Your task to perform on an android device: turn on showing notifications on the lock screen Image 0: 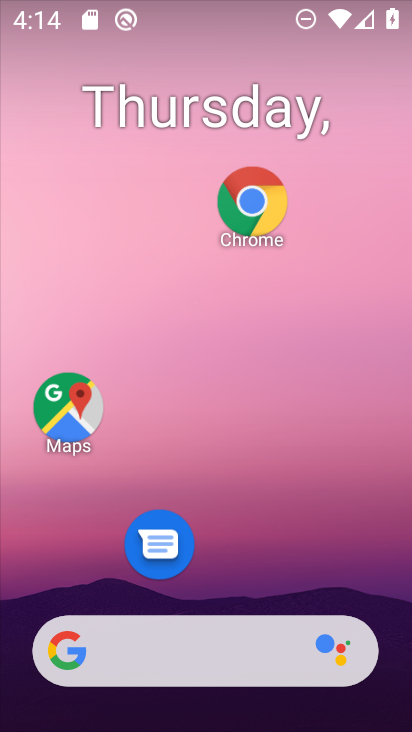
Step 0: drag from (346, 526) to (367, 270)
Your task to perform on an android device: turn on showing notifications on the lock screen Image 1: 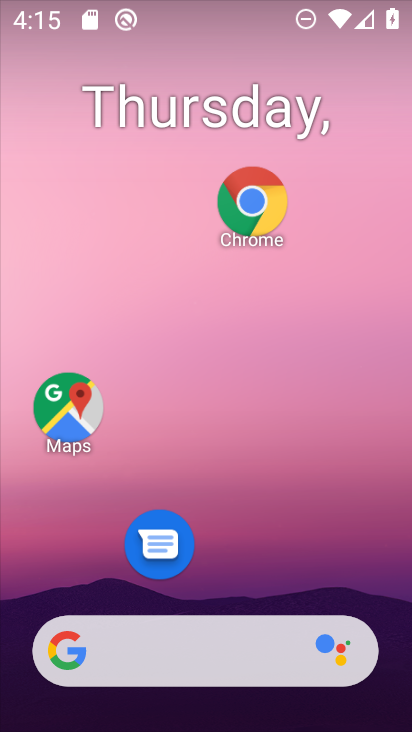
Step 1: drag from (283, 570) to (293, 61)
Your task to perform on an android device: turn on showing notifications on the lock screen Image 2: 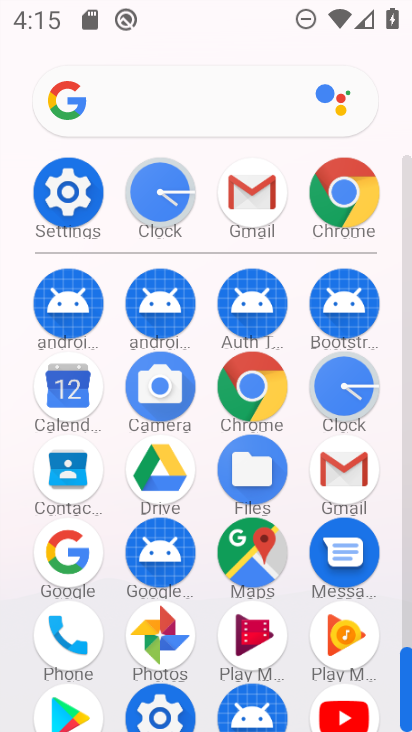
Step 2: click (75, 198)
Your task to perform on an android device: turn on showing notifications on the lock screen Image 3: 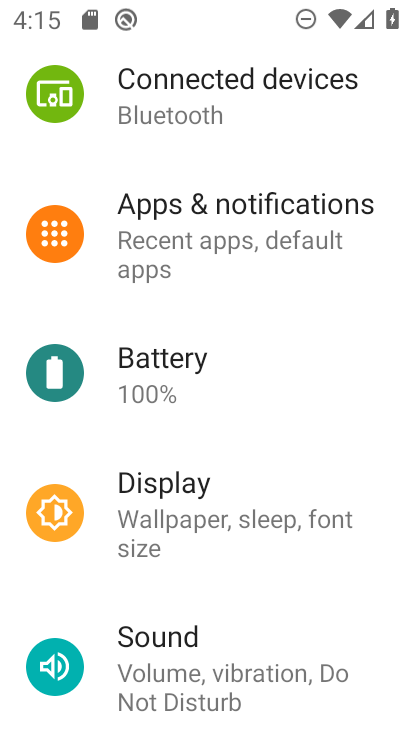
Step 3: click (176, 245)
Your task to perform on an android device: turn on showing notifications on the lock screen Image 4: 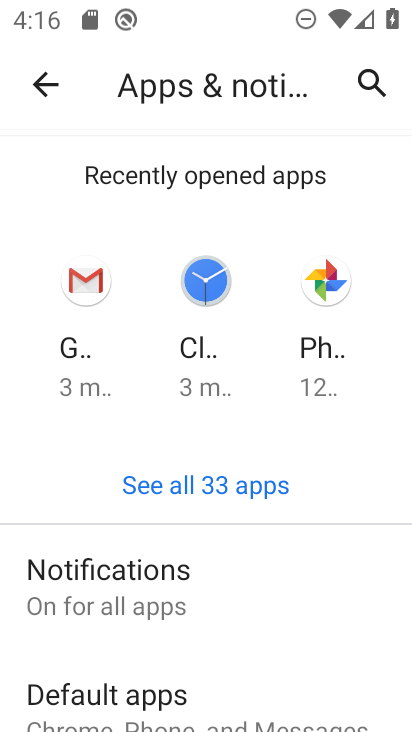
Step 4: drag from (204, 619) to (219, 316)
Your task to perform on an android device: turn on showing notifications on the lock screen Image 5: 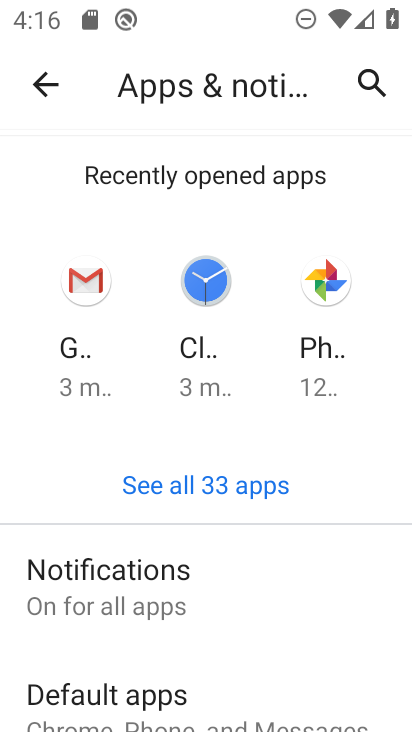
Step 5: drag from (270, 630) to (265, 342)
Your task to perform on an android device: turn on showing notifications on the lock screen Image 6: 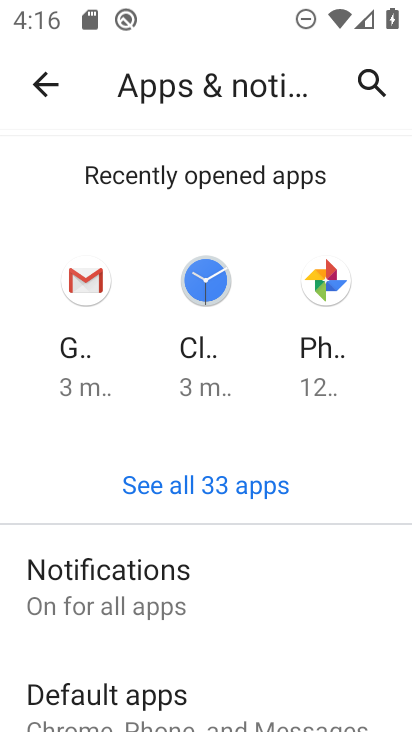
Step 6: drag from (290, 656) to (311, 501)
Your task to perform on an android device: turn on showing notifications on the lock screen Image 7: 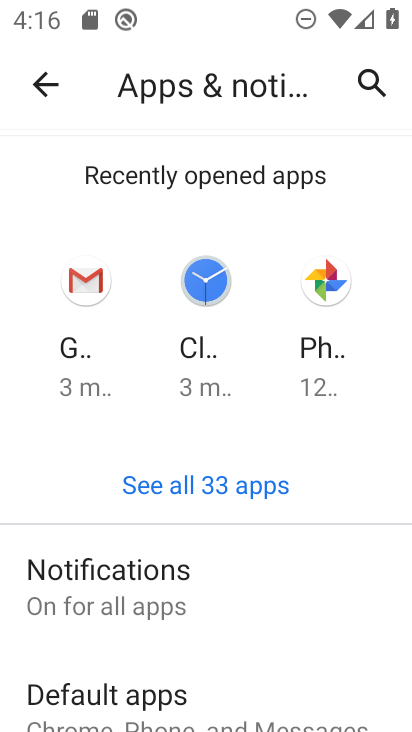
Step 7: press back button
Your task to perform on an android device: turn on showing notifications on the lock screen Image 8: 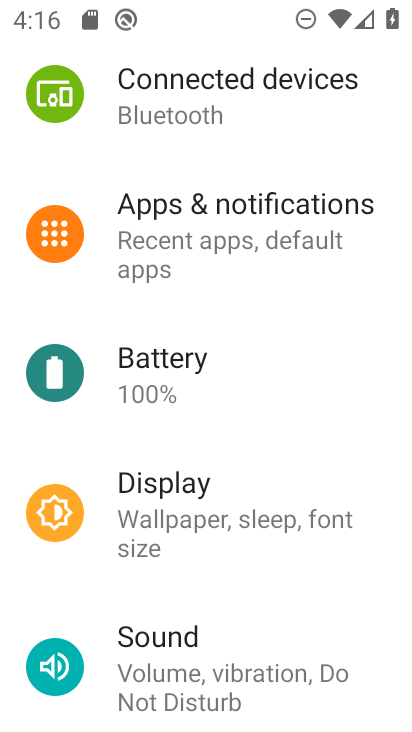
Step 8: click (161, 232)
Your task to perform on an android device: turn on showing notifications on the lock screen Image 9: 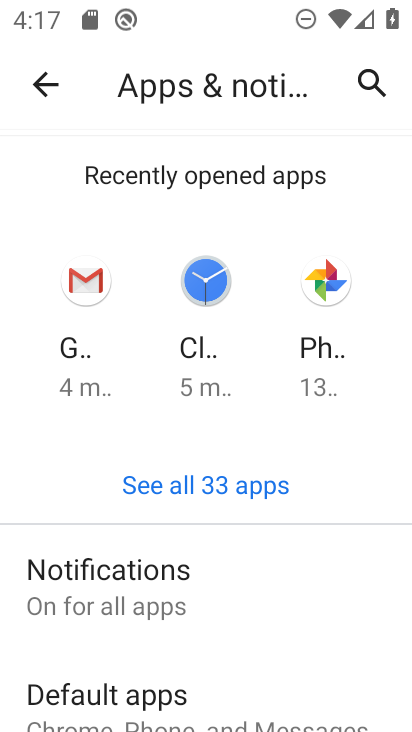
Step 9: drag from (245, 585) to (275, 93)
Your task to perform on an android device: turn on showing notifications on the lock screen Image 10: 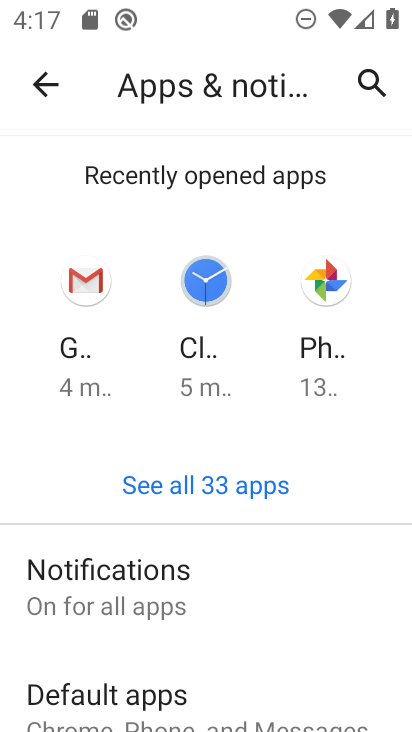
Step 10: click (159, 586)
Your task to perform on an android device: turn on showing notifications on the lock screen Image 11: 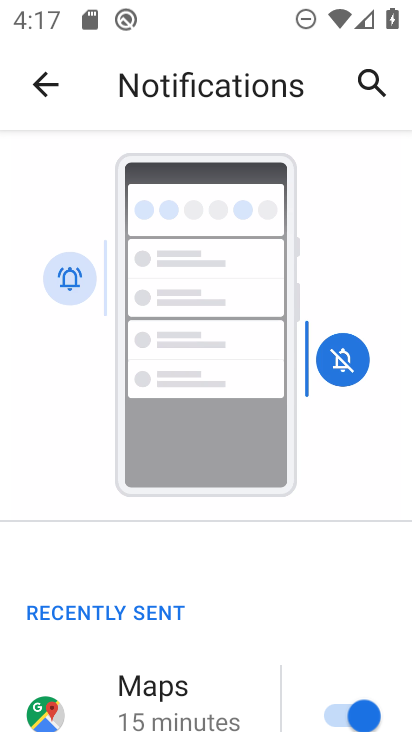
Step 11: press back button
Your task to perform on an android device: turn on showing notifications on the lock screen Image 12: 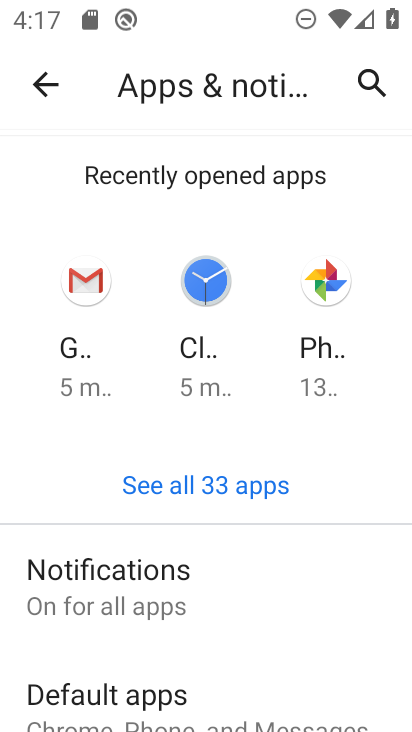
Step 12: drag from (233, 616) to (300, 124)
Your task to perform on an android device: turn on showing notifications on the lock screen Image 13: 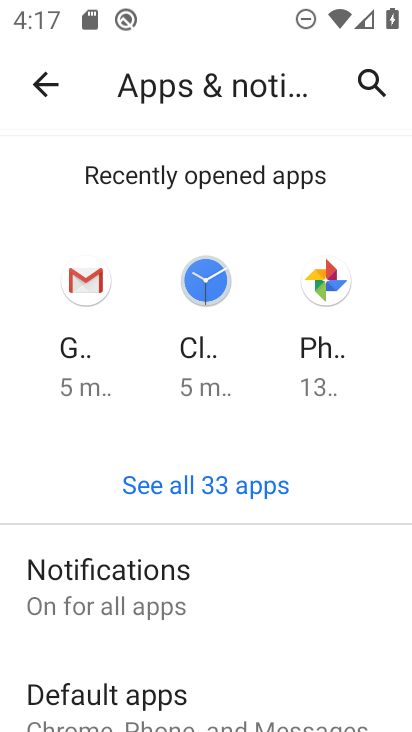
Step 13: click (196, 610)
Your task to perform on an android device: turn on showing notifications on the lock screen Image 14: 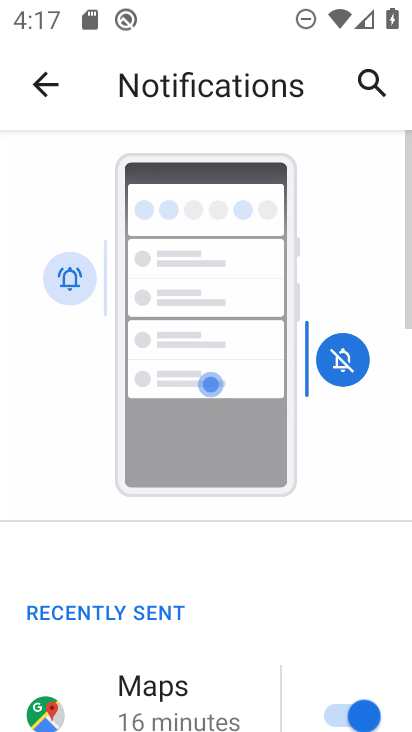
Step 14: drag from (198, 613) to (281, 85)
Your task to perform on an android device: turn on showing notifications on the lock screen Image 15: 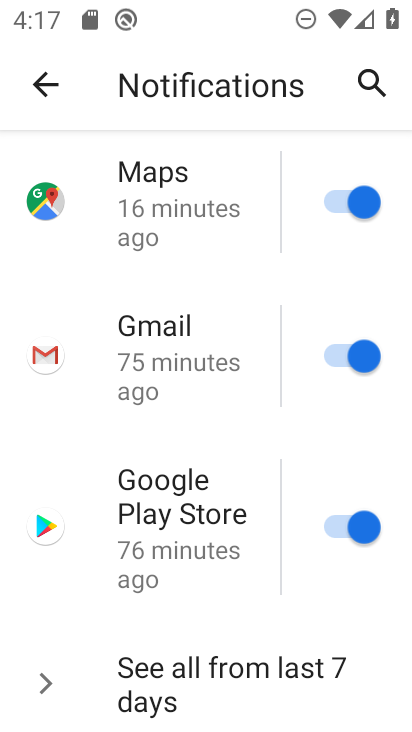
Step 15: drag from (205, 639) to (261, 183)
Your task to perform on an android device: turn on showing notifications on the lock screen Image 16: 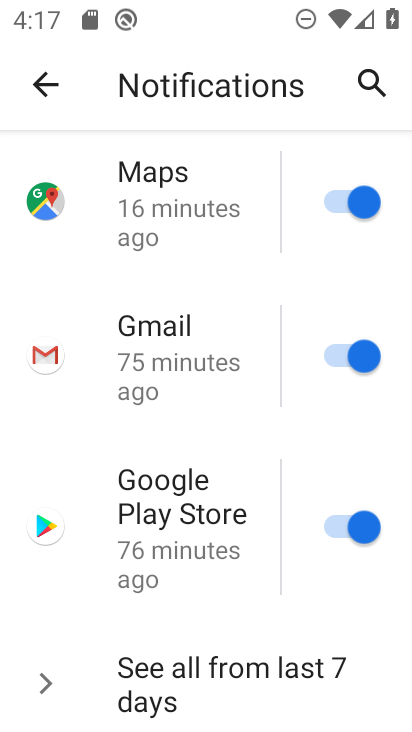
Step 16: click (200, 679)
Your task to perform on an android device: turn on showing notifications on the lock screen Image 17: 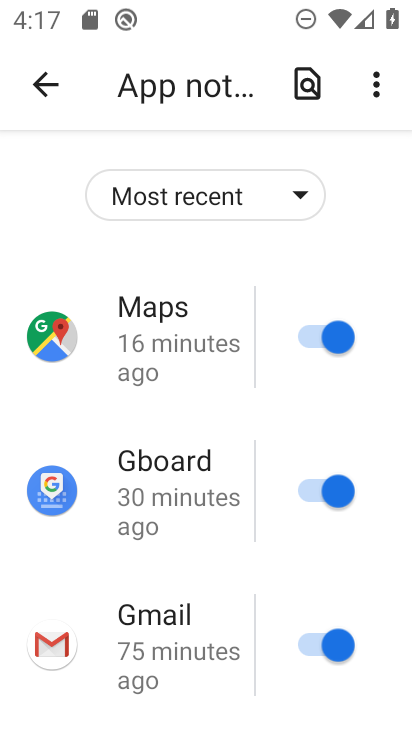
Step 17: drag from (192, 254) to (94, 638)
Your task to perform on an android device: turn on showing notifications on the lock screen Image 18: 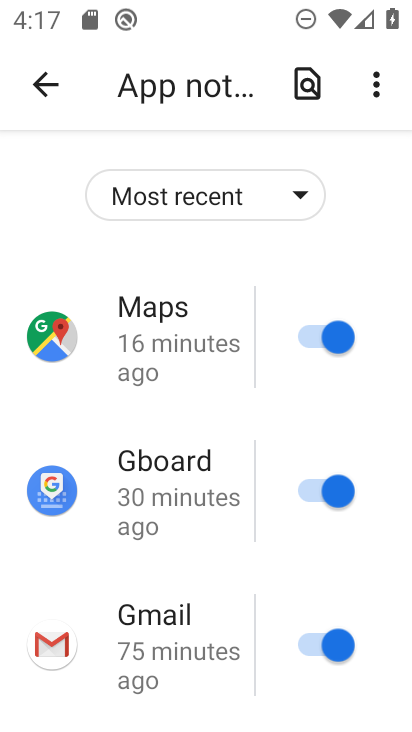
Step 18: drag from (221, 499) to (216, 34)
Your task to perform on an android device: turn on showing notifications on the lock screen Image 19: 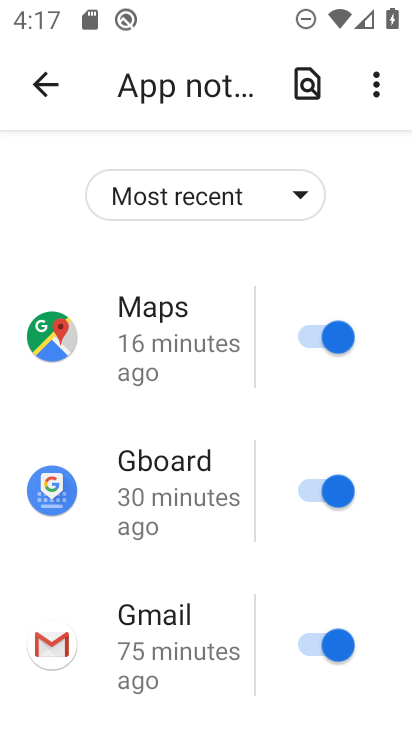
Step 19: drag from (193, 617) to (242, 321)
Your task to perform on an android device: turn on showing notifications on the lock screen Image 20: 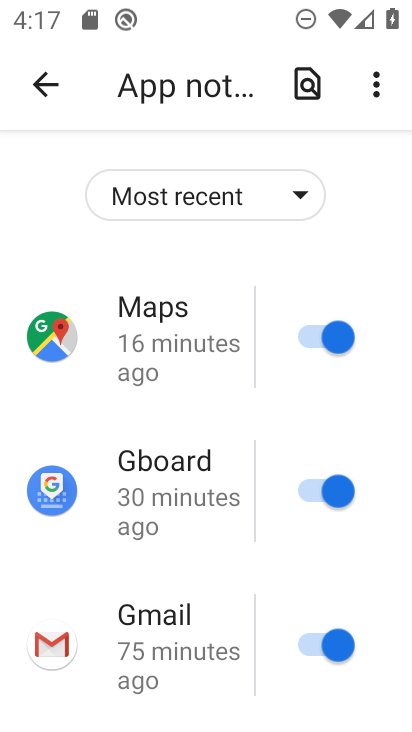
Step 20: drag from (275, 661) to (279, 172)
Your task to perform on an android device: turn on showing notifications on the lock screen Image 21: 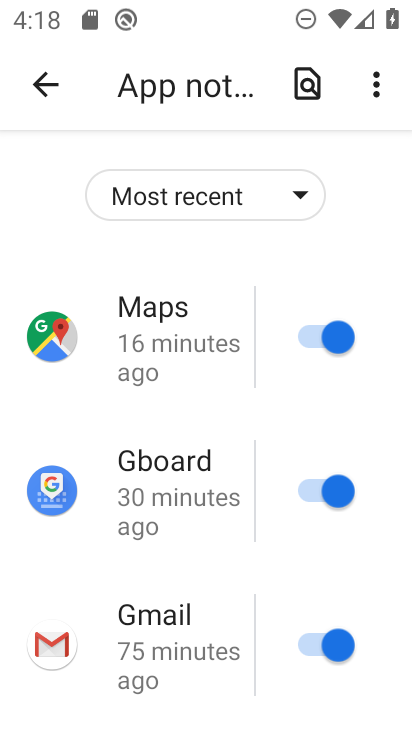
Step 21: drag from (1, 651) to (116, 313)
Your task to perform on an android device: turn on showing notifications on the lock screen Image 22: 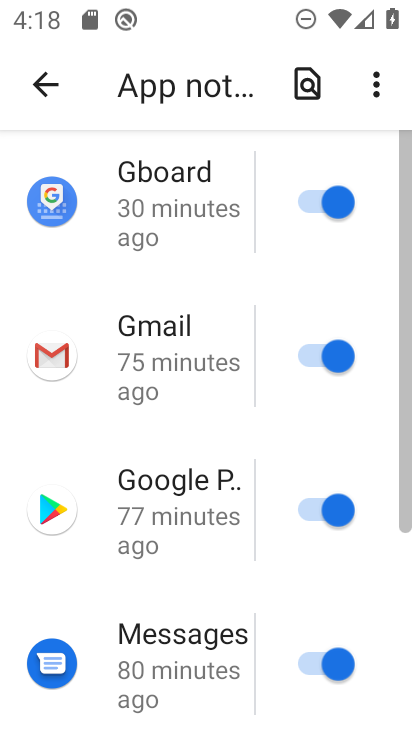
Step 22: drag from (203, 626) to (279, 184)
Your task to perform on an android device: turn on showing notifications on the lock screen Image 23: 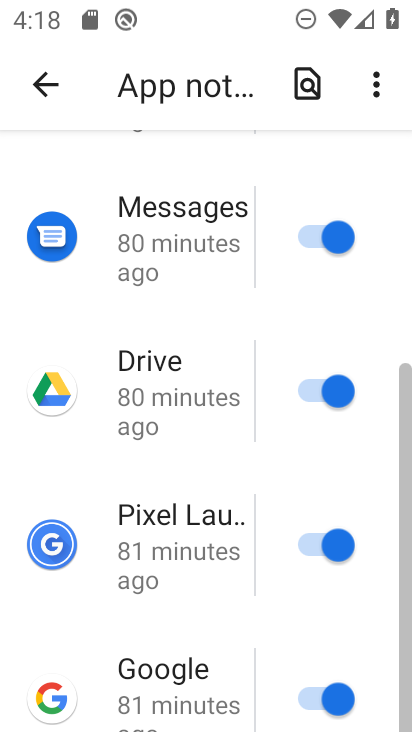
Step 23: drag from (206, 626) to (285, 168)
Your task to perform on an android device: turn on showing notifications on the lock screen Image 24: 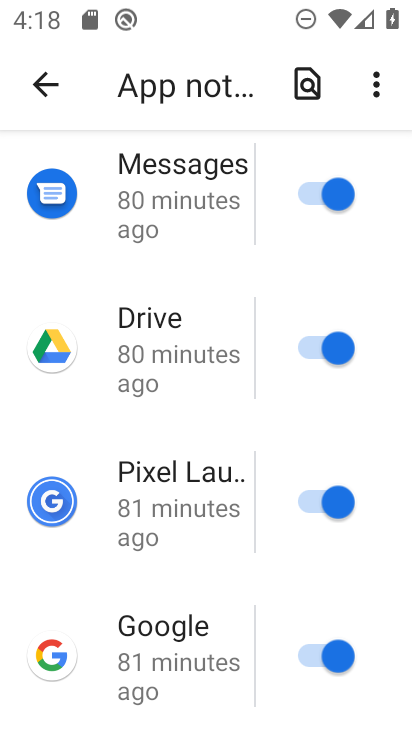
Step 24: click (45, 81)
Your task to perform on an android device: turn on showing notifications on the lock screen Image 25: 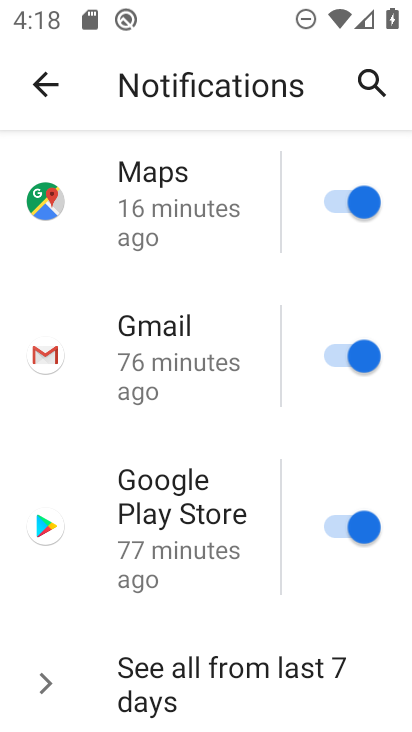
Step 25: drag from (265, 512) to (335, 140)
Your task to perform on an android device: turn on showing notifications on the lock screen Image 26: 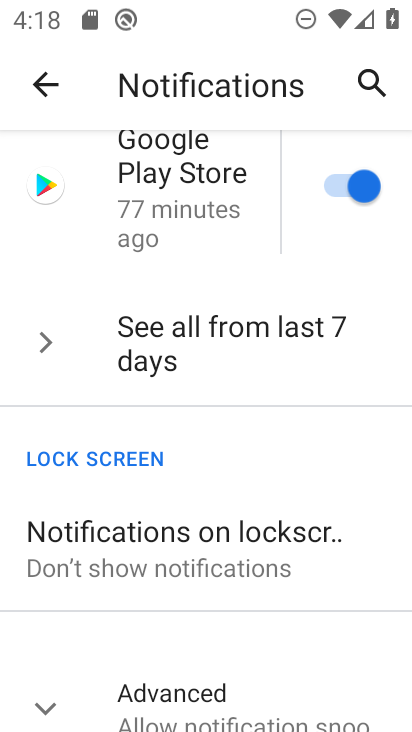
Step 26: click (212, 537)
Your task to perform on an android device: turn on showing notifications on the lock screen Image 27: 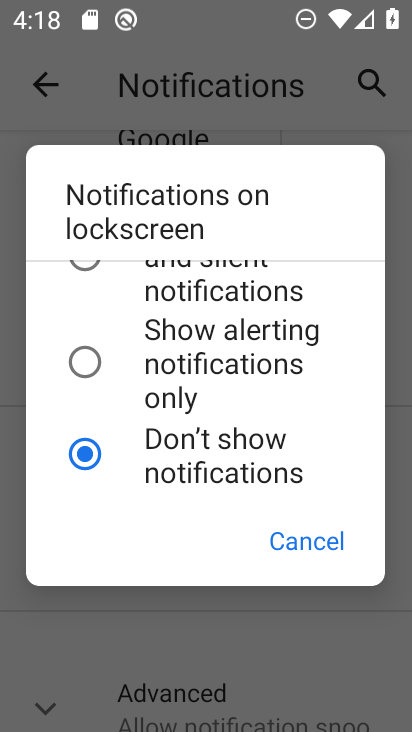
Step 27: drag from (87, 312) to (59, 534)
Your task to perform on an android device: turn on showing notifications on the lock screen Image 28: 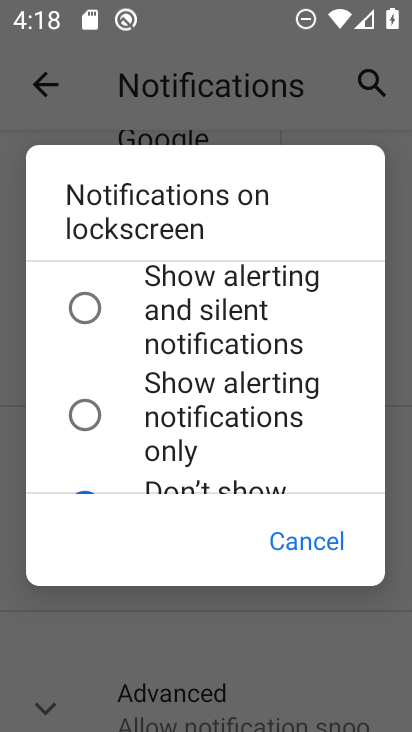
Step 28: click (86, 309)
Your task to perform on an android device: turn on showing notifications on the lock screen Image 29: 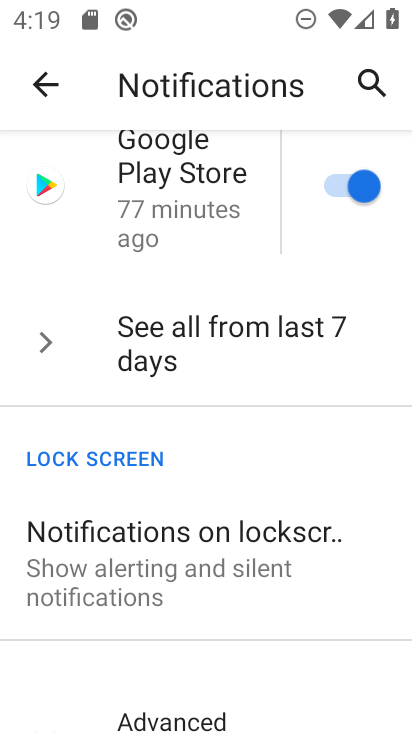
Step 29: press home button
Your task to perform on an android device: turn on showing notifications on the lock screen Image 30: 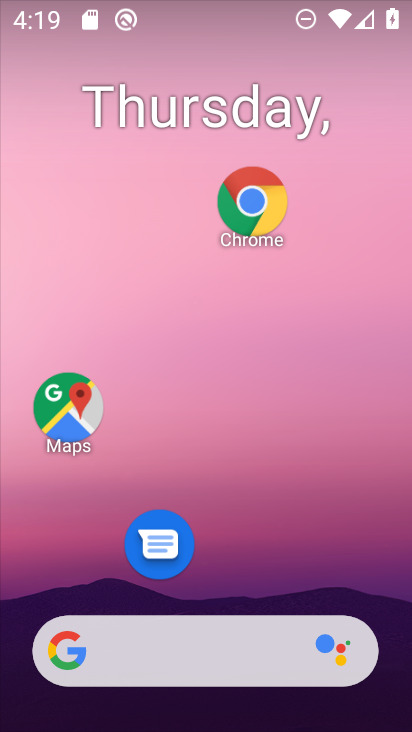
Step 30: drag from (292, 523) to (265, 162)
Your task to perform on an android device: turn on showing notifications on the lock screen Image 31: 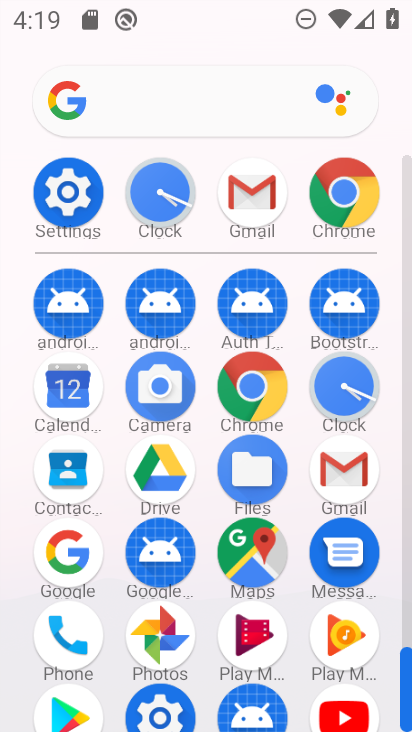
Step 31: click (72, 202)
Your task to perform on an android device: turn on showing notifications on the lock screen Image 32: 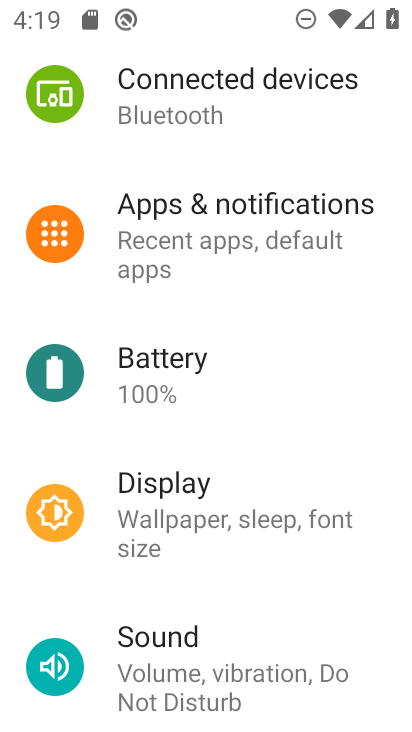
Step 32: click (223, 217)
Your task to perform on an android device: turn on showing notifications on the lock screen Image 33: 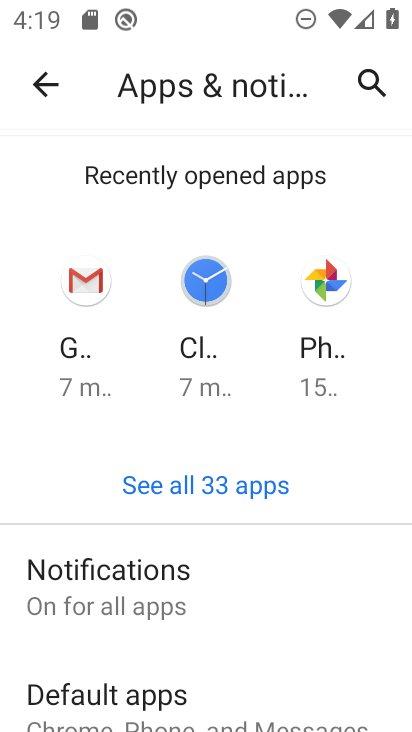
Step 33: drag from (255, 634) to (154, 198)
Your task to perform on an android device: turn on showing notifications on the lock screen Image 34: 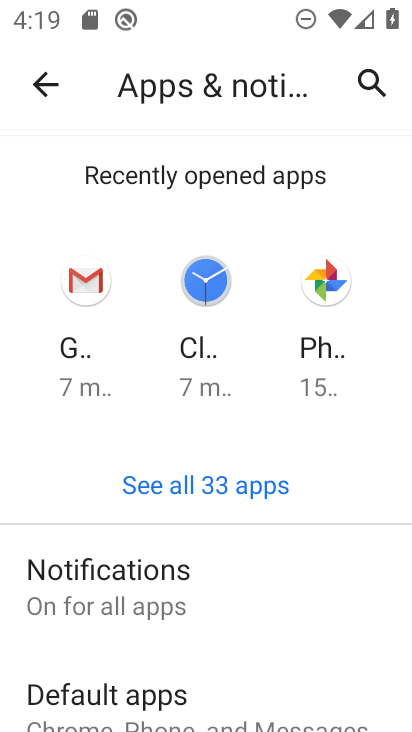
Step 34: drag from (275, 654) to (270, 319)
Your task to perform on an android device: turn on showing notifications on the lock screen Image 35: 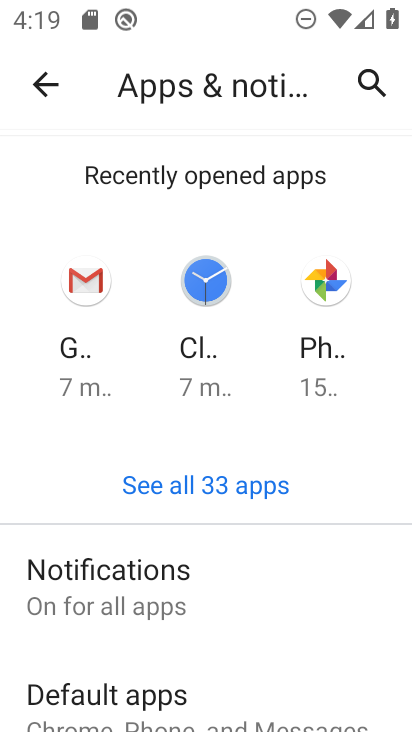
Step 35: drag from (228, 651) to (260, 582)
Your task to perform on an android device: turn on showing notifications on the lock screen Image 36: 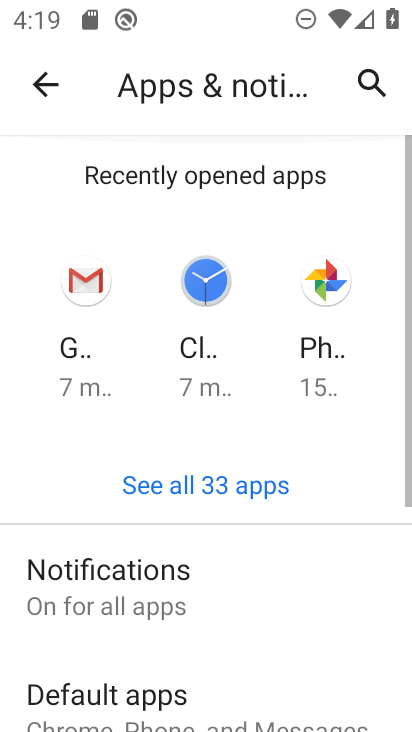
Step 36: drag from (312, 609) to (337, 153)
Your task to perform on an android device: turn on showing notifications on the lock screen Image 37: 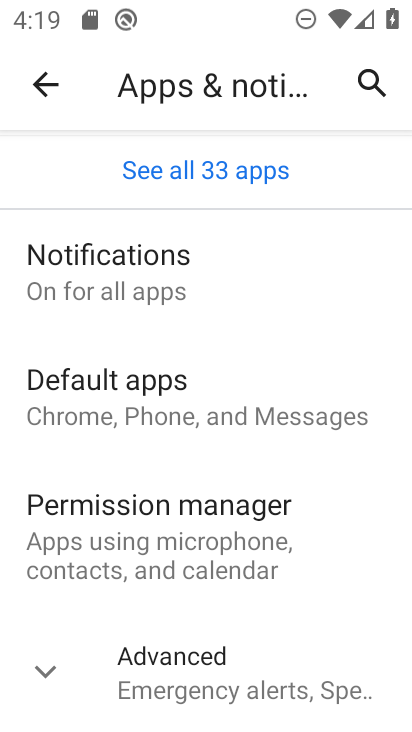
Step 37: drag from (288, 608) to (312, 156)
Your task to perform on an android device: turn on showing notifications on the lock screen Image 38: 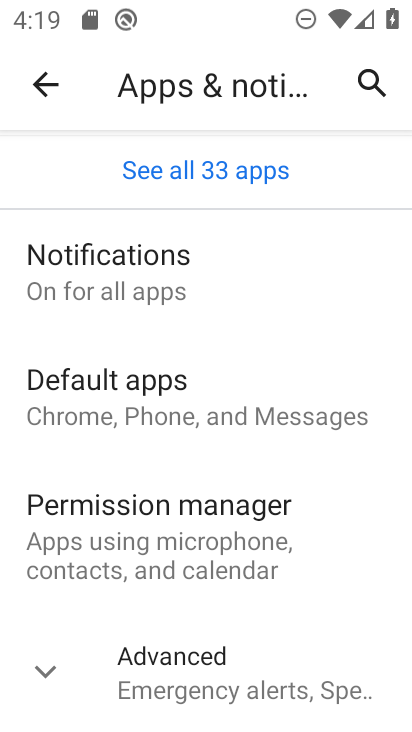
Step 38: click (46, 667)
Your task to perform on an android device: turn on showing notifications on the lock screen Image 39: 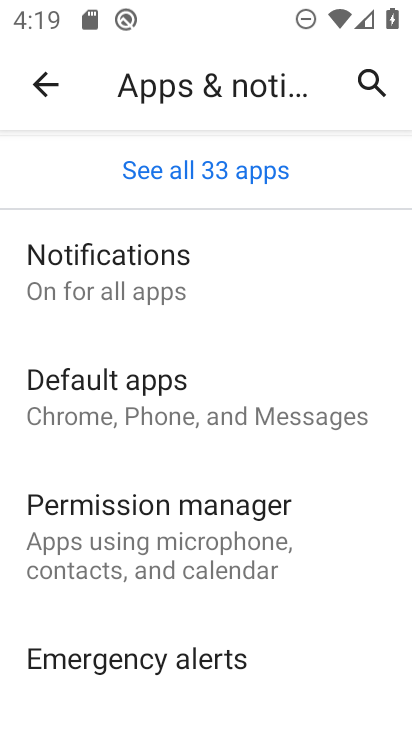
Step 39: drag from (326, 673) to (323, 315)
Your task to perform on an android device: turn on showing notifications on the lock screen Image 40: 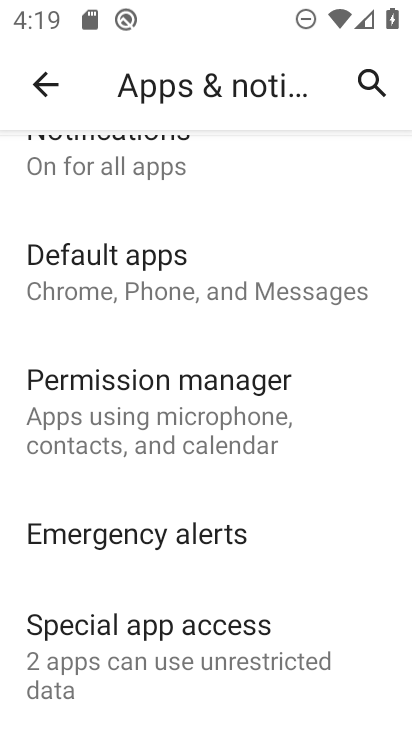
Step 40: drag from (247, 662) to (251, 404)
Your task to perform on an android device: turn on showing notifications on the lock screen Image 41: 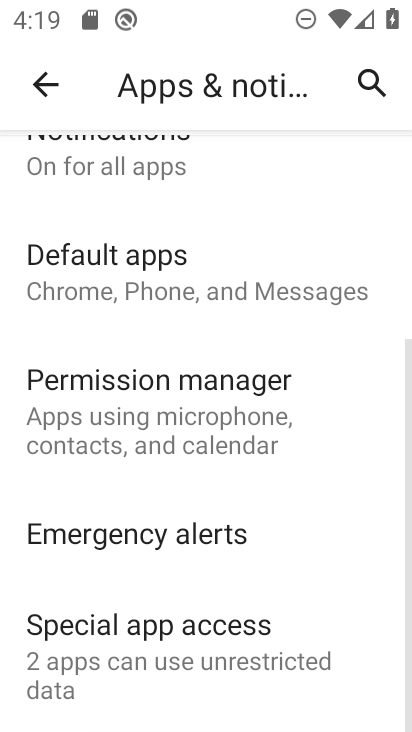
Step 41: drag from (289, 297) to (252, 657)
Your task to perform on an android device: turn on showing notifications on the lock screen Image 42: 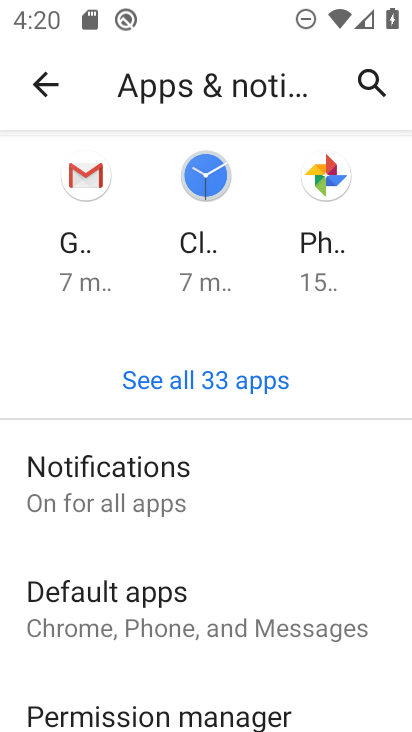
Step 42: click (97, 495)
Your task to perform on an android device: turn on showing notifications on the lock screen Image 43: 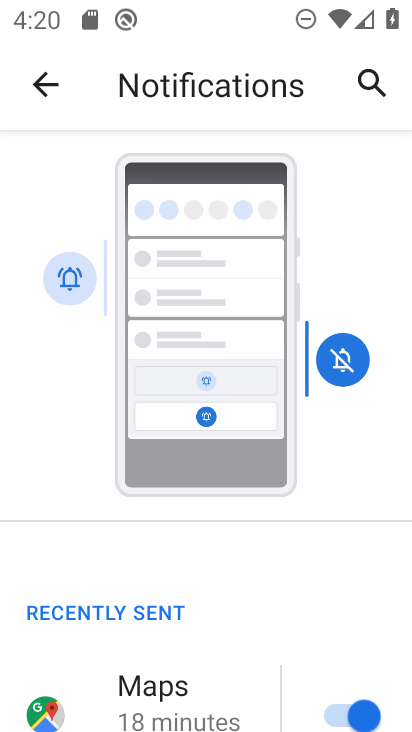
Step 43: drag from (228, 601) to (281, 159)
Your task to perform on an android device: turn on showing notifications on the lock screen Image 44: 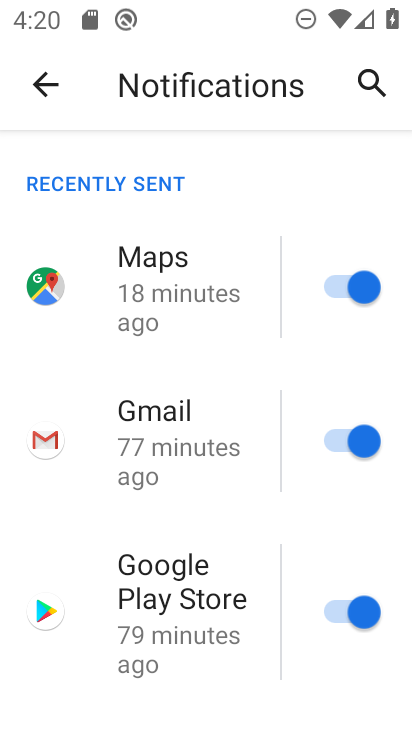
Step 44: drag from (247, 584) to (284, 202)
Your task to perform on an android device: turn on showing notifications on the lock screen Image 45: 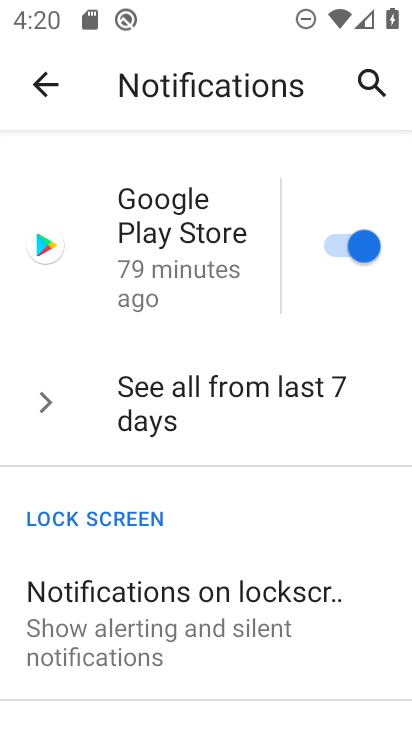
Step 45: click (266, 604)
Your task to perform on an android device: turn on showing notifications on the lock screen Image 46: 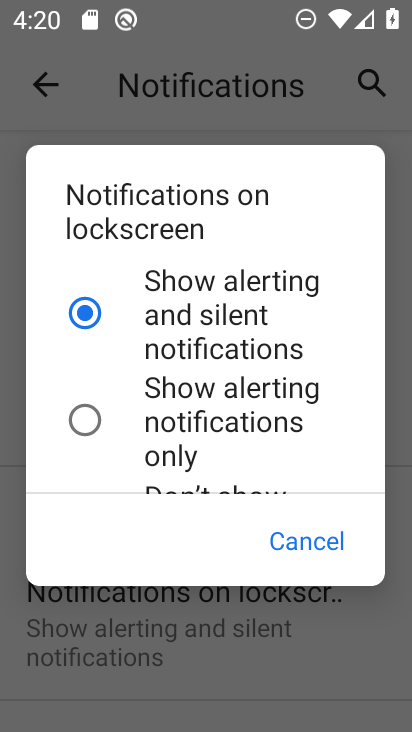
Step 46: click (81, 315)
Your task to perform on an android device: turn on showing notifications on the lock screen Image 47: 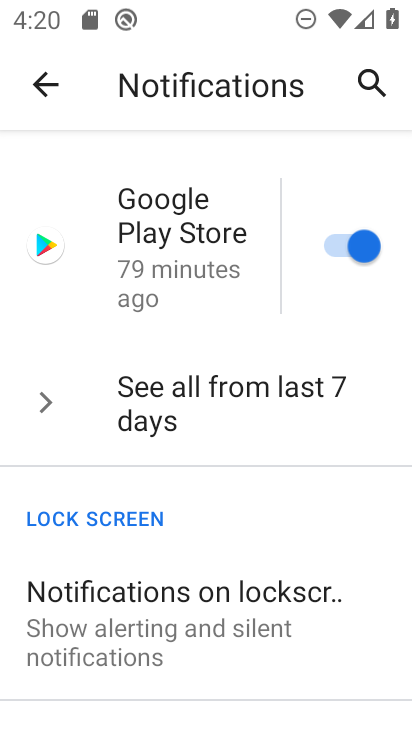
Step 47: press home button
Your task to perform on an android device: turn on showing notifications on the lock screen Image 48: 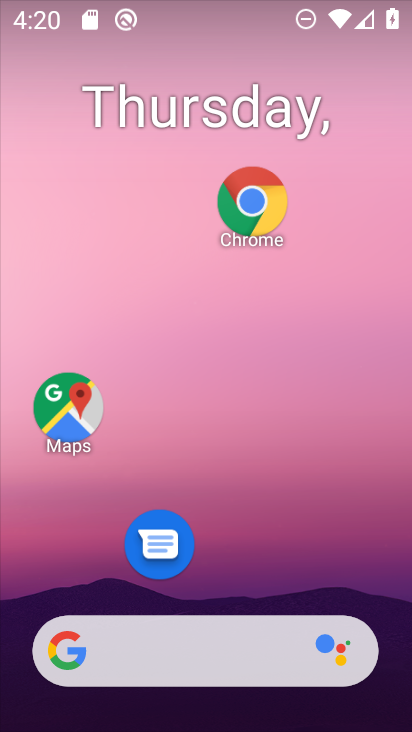
Step 48: drag from (319, 566) to (277, 244)
Your task to perform on an android device: turn on showing notifications on the lock screen Image 49: 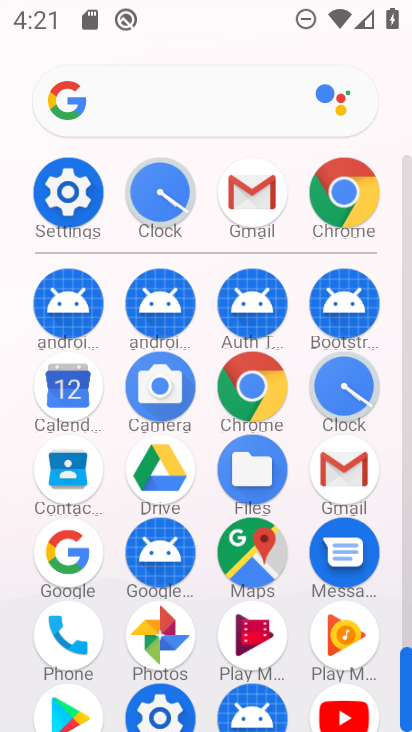
Step 49: click (57, 206)
Your task to perform on an android device: turn on showing notifications on the lock screen Image 50: 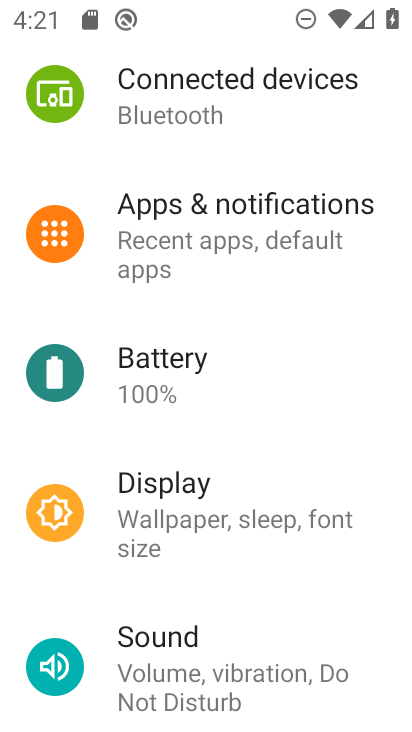
Step 50: drag from (221, 653) to (229, 3)
Your task to perform on an android device: turn on showing notifications on the lock screen Image 51: 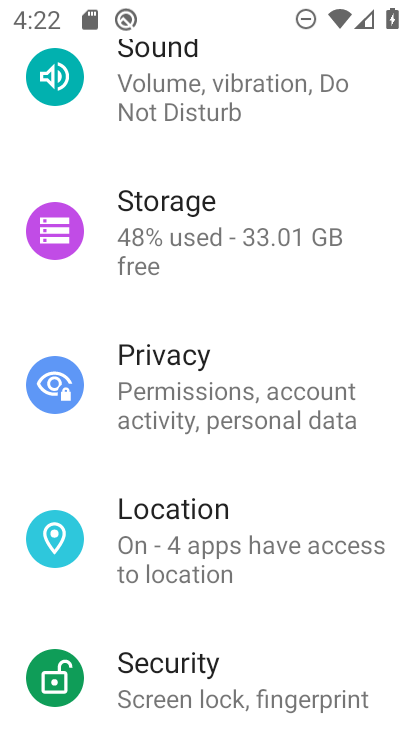
Step 51: drag from (293, 160) to (304, 698)
Your task to perform on an android device: turn on showing notifications on the lock screen Image 52: 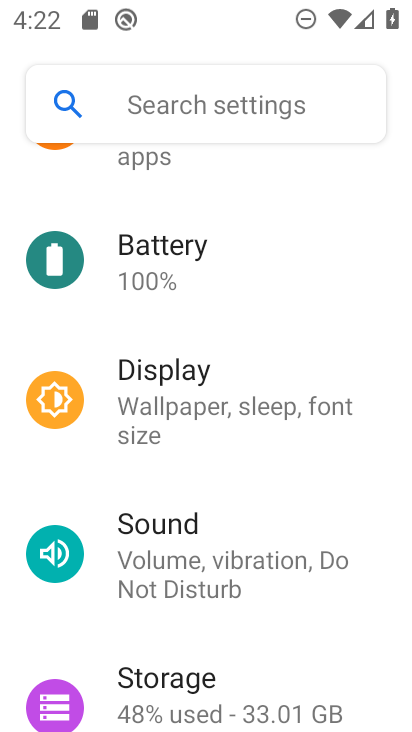
Step 52: drag from (242, 271) to (248, 598)
Your task to perform on an android device: turn on showing notifications on the lock screen Image 53: 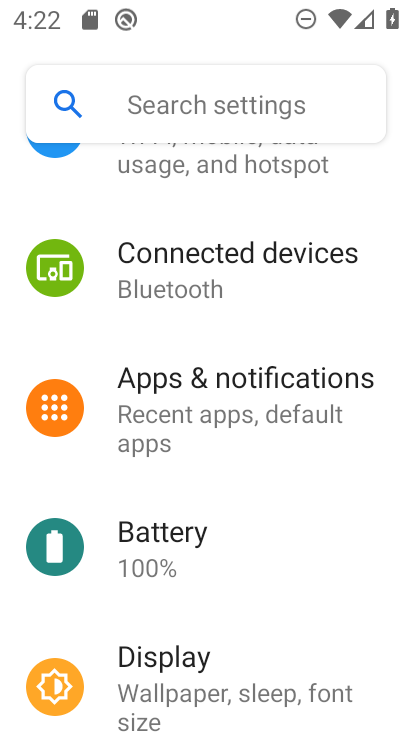
Step 53: click (232, 386)
Your task to perform on an android device: turn on showing notifications on the lock screen Image 54: 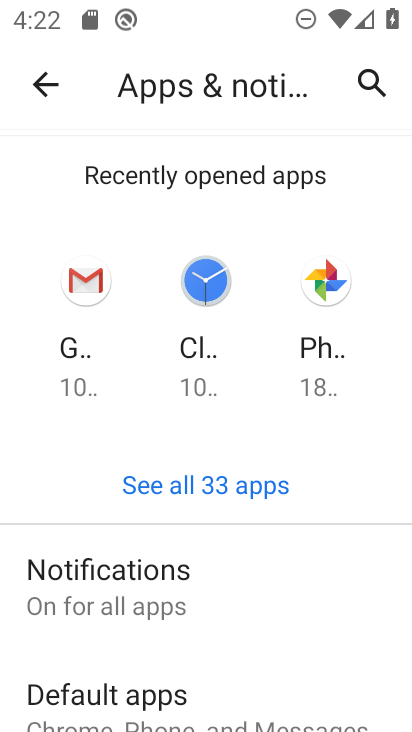
Step 54: click (155, 602)
Your task to perform on an android device: turn on showing notifications on the lock screen Image 55: 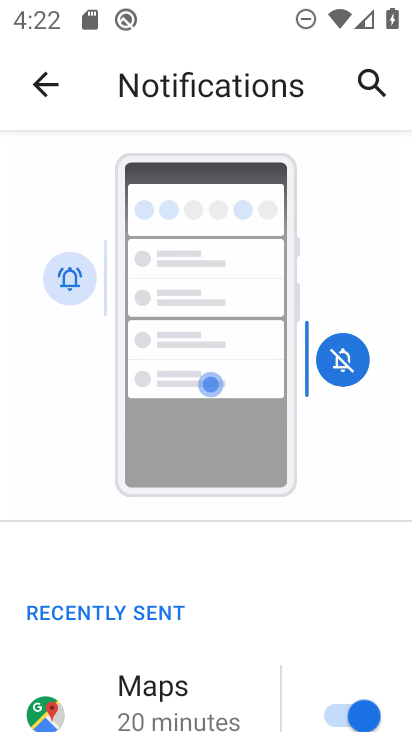
Step 55: drag from (177, 666) to (211, 47)
Your task to perform on an android device: turn on showing notifications on the lock screen Image 56: 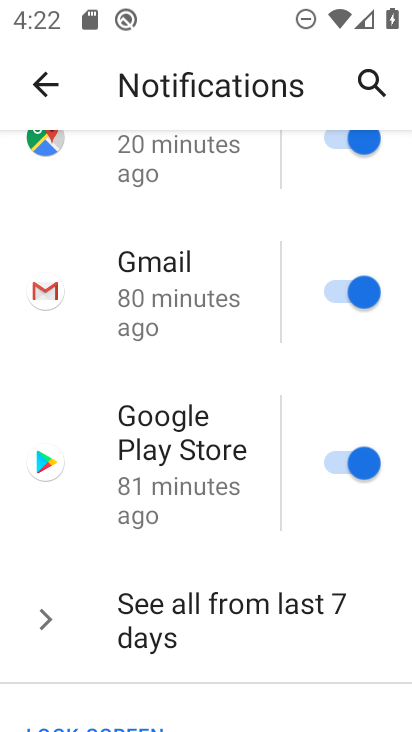
Step 56: drag from (187, 590) to (222, 129)
Your task to perform on an android device: turn on showing notifications on the lock screen Image 57: 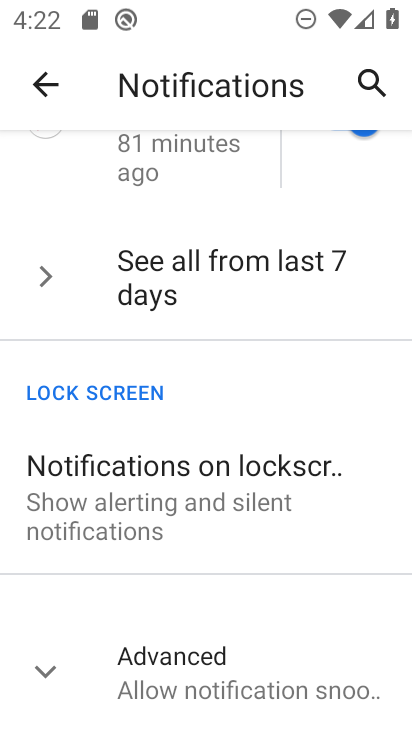
Step 57: drag from (214, 551) to (233, 154)
Your task to perform on an android device: turn on showing notifications on the lock screen Image 58: 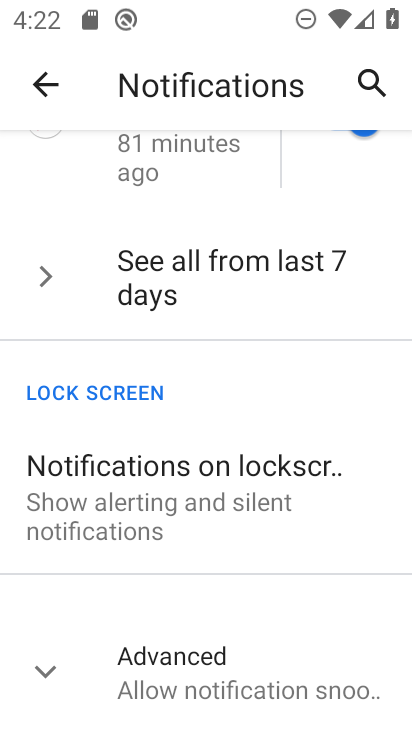
Step 58: press home button
Your task to perform on an android device: turn on showing notifications on the lock screen Image 59: 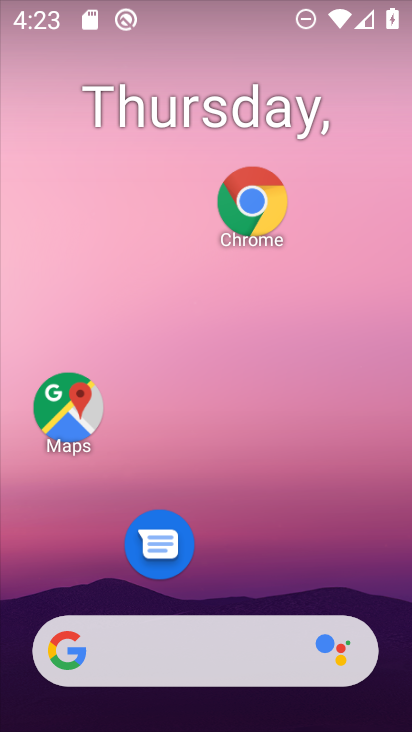
Step 59: drag from (293, 5) to (317, 589)
Your task to perform on an android device: turn on showing notifications on the lock screen Image 60: 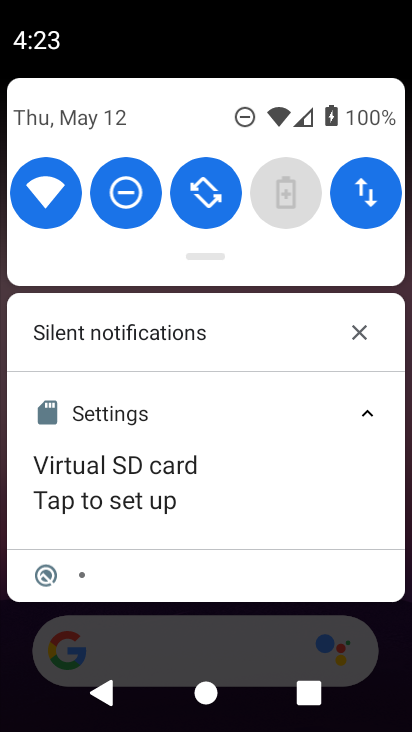
Step 60: press back button
Your task to perform on an android device: turn on showing notifications on the lock screen Image 61: 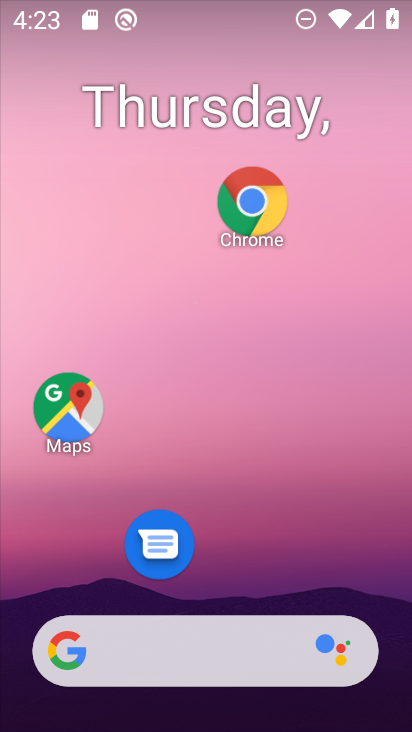
Step 61: drag from (294, 571) to (325, 54)
Your task to perform on an android device: turn on showing notifications on the lock screen Image 62: 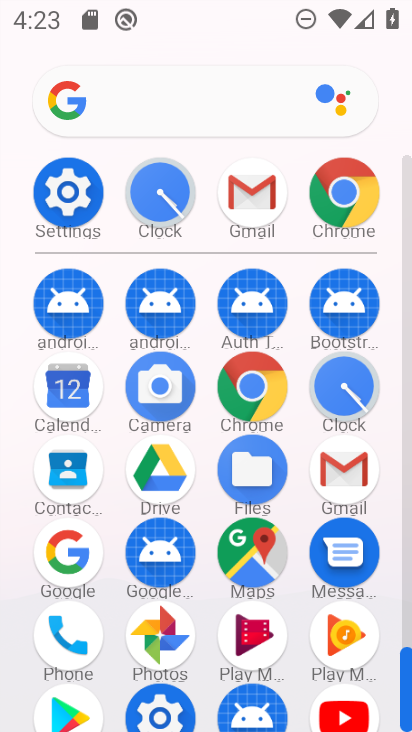
Step 62: click (85, 201)
Your task to perform on an android device: turn on showing notifications on the lock screen Image 63: 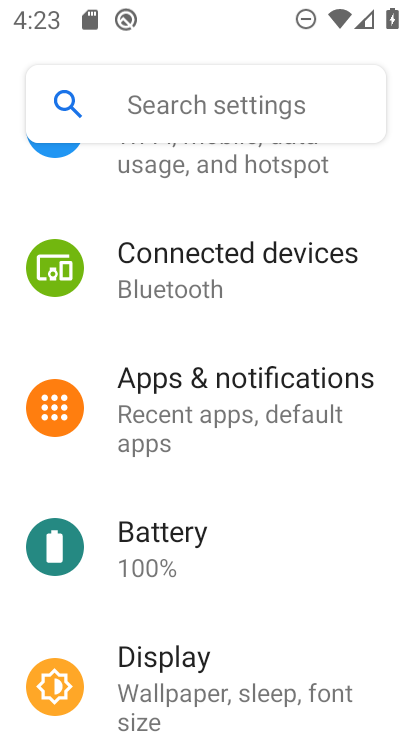
Step 63: click (227, 419)
Your task to perform on an android device: turn on showing notifications on the lock screen Image 64: 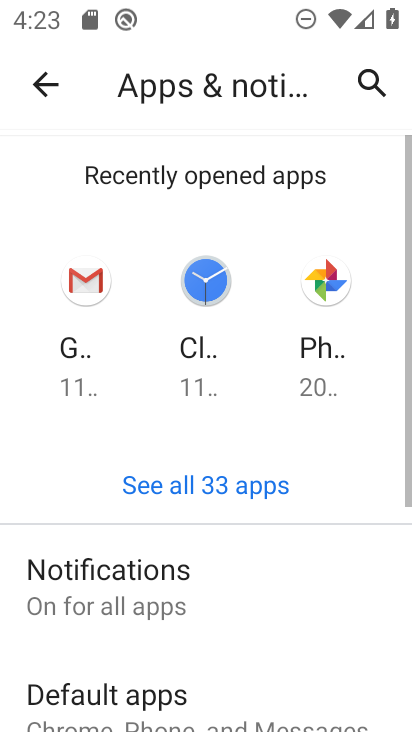
Step 64: click (168, 587)
Your task to perform on an android device: turn on showing notifications on the lock screen Image 65: 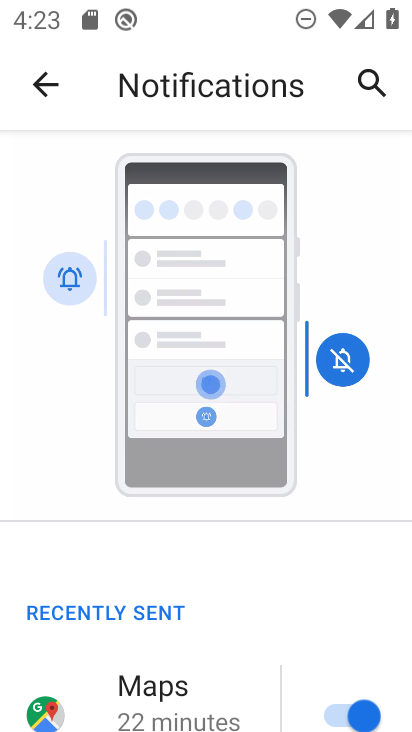
Step 65: task complete